Your task to perform on an android device: turn on javascript in the chrome app Image 0: 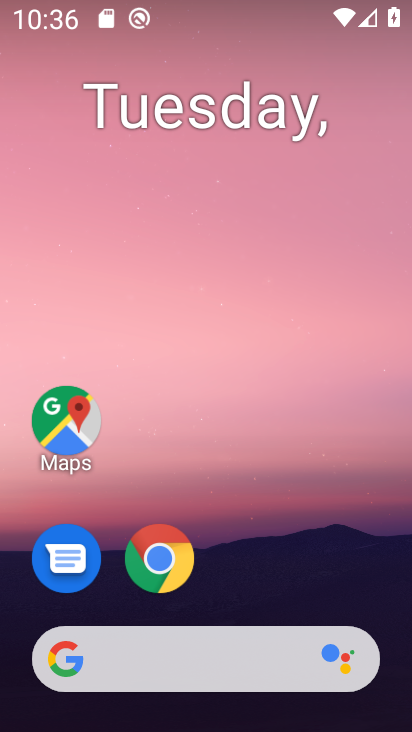
Step 0: drag from (287, 566) to (333, 109)
Your task to perform on an android device: turn on javascript in the chrome app Image 1: 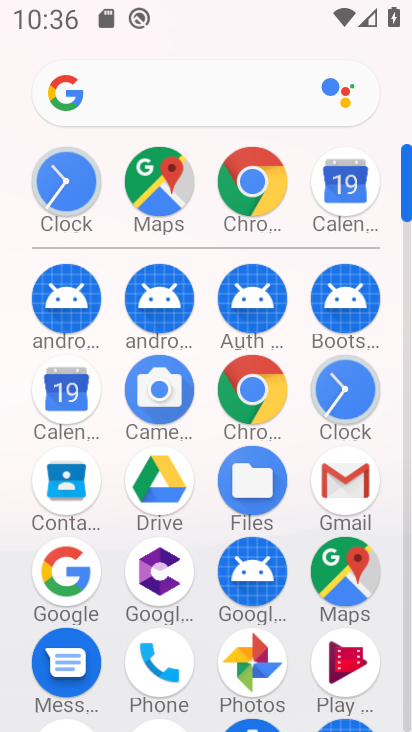
Step 1: click (263, 381)
Your task to perform on an android device: turn on javascript in the chrome app Image 2: 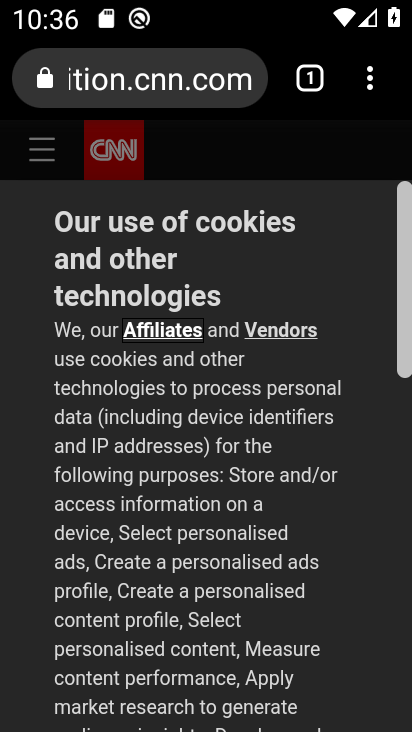
Step 2: click (369, 89)
Your task to perform on an android device: turn on javascript in the chrome app Image 3: 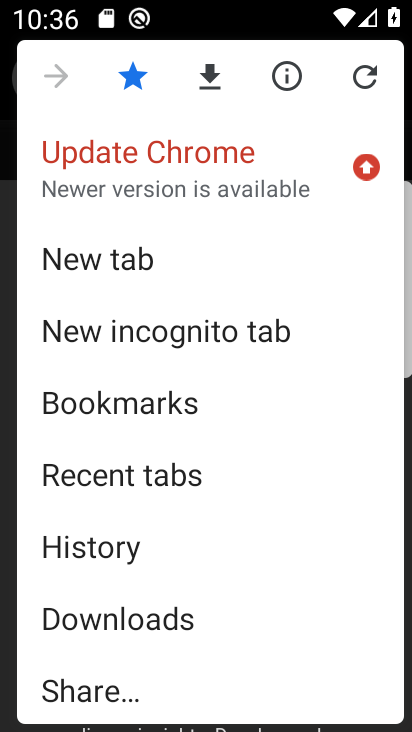
Step 3: drag from (285, 495) to (338, 241)
Your task to perform on an android device: turn on javascript in the chrome app Image 4: 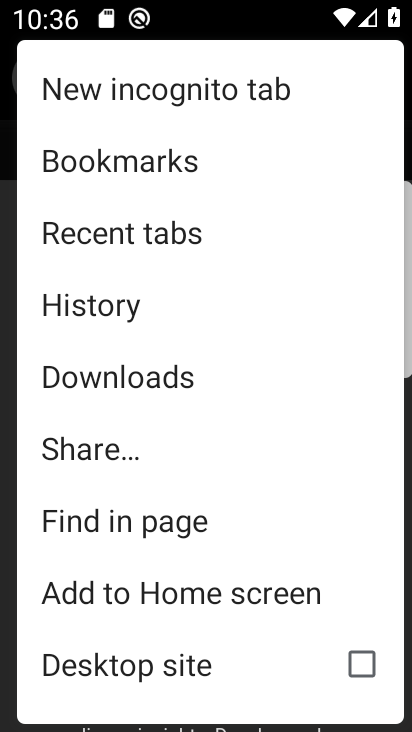
Step 4: drag from (313, 451) to (333, 244)
Your task to perform on an android device: turn on javascript in the chrome app Image 5: 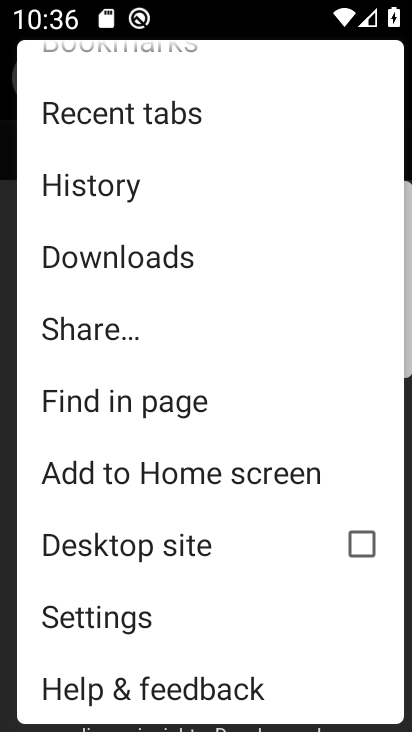
Step 5: drag from (319, 373) to (319, 229)
Your task to perform on an android device: turn on javascript in the chrome app Image 6: 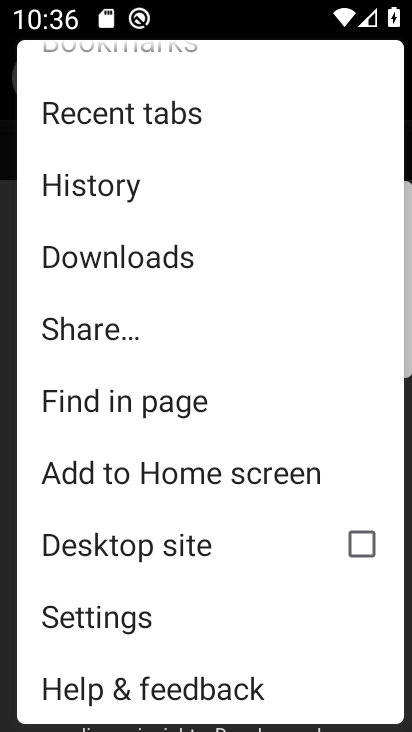
Step 6: click (193, 609)
Your task to perform on an android device: turn on javascript in the chrome app Image 7: 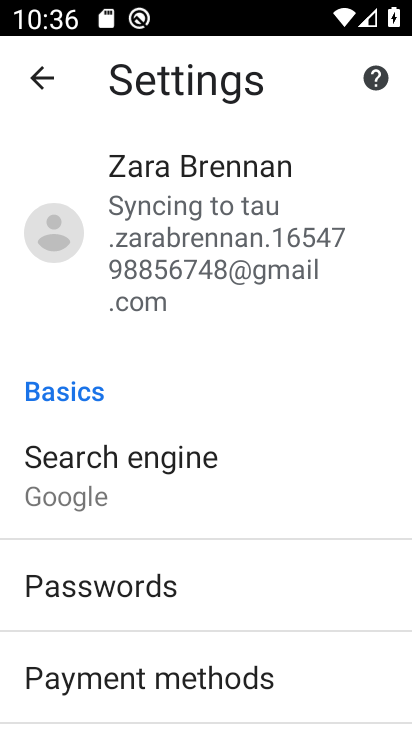
Step 7: drag from (292, 568) to (324, 319)
Your task to perform on an android device: turn on javascript in the chrome app Image 8: 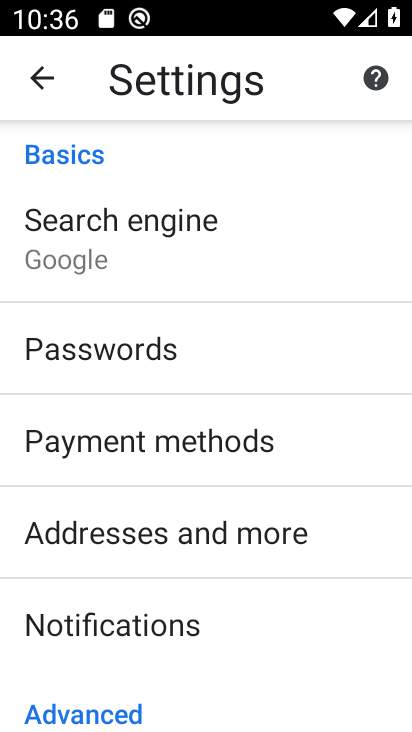
Step 8: drag from (339, 529) to (340, 271)
Your task to perform on an android device: turn on javascript in the chrome app Image 9: 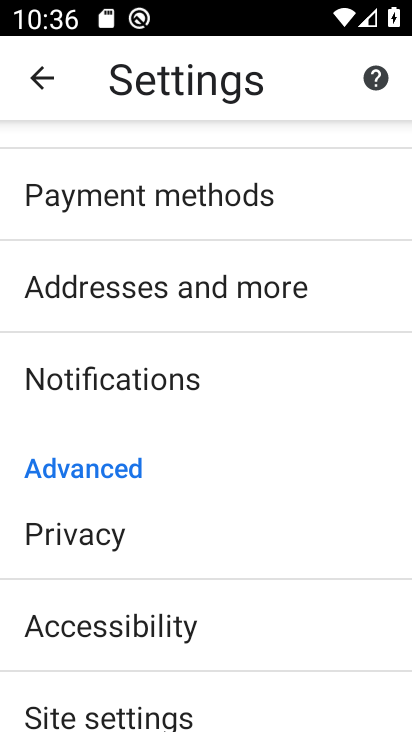
Step 9: drag from (325, 454) to (339, 268)
Your task to perform on an android device: turn on javascript in the chrome app Image 10: 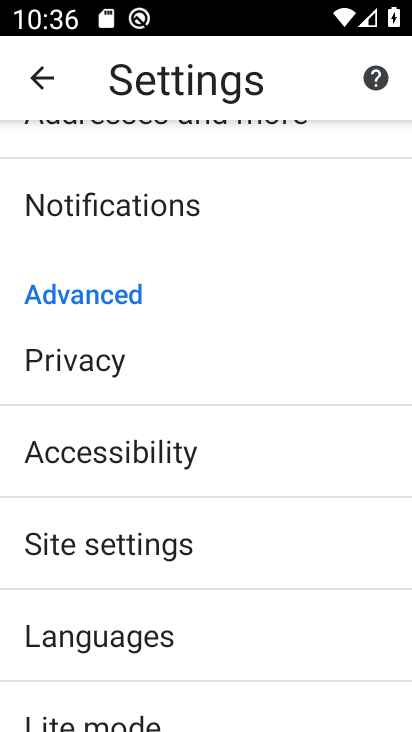
Step 10: drag from (324, 411) to (340, 260)
Your task to perform on an android device: turn on javascript in the chrome app Image 11: 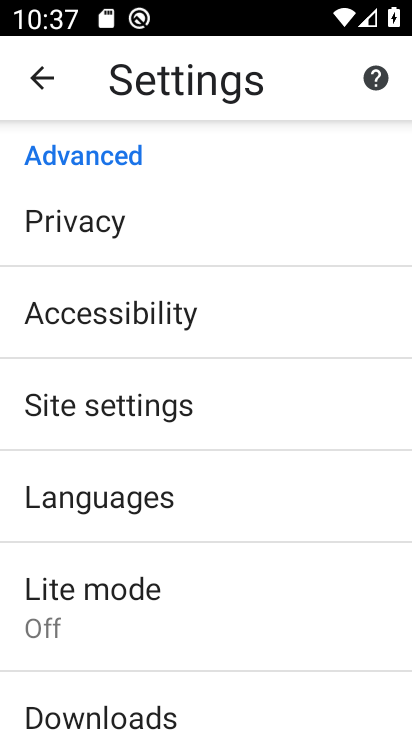
Step 11: drag from (308, 421) to (332, 222)
Your task to perform on an android device: turn on javascript in the chrome app Image 12: 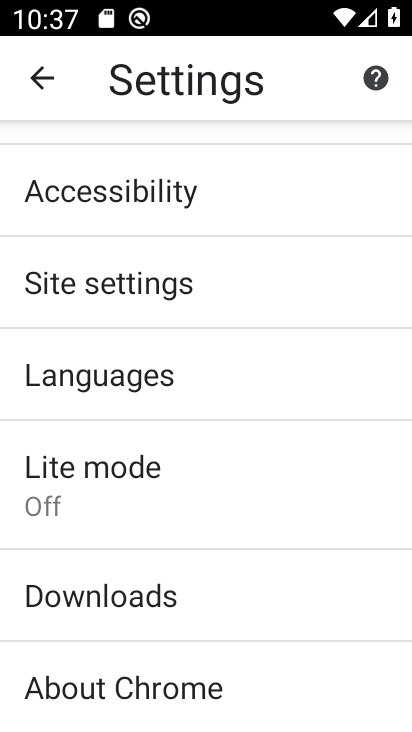
Step 12: drag from (313, 476) to (321, 279)
Your task to perform on an android device: turn on javascript in the chrome app Image 13: 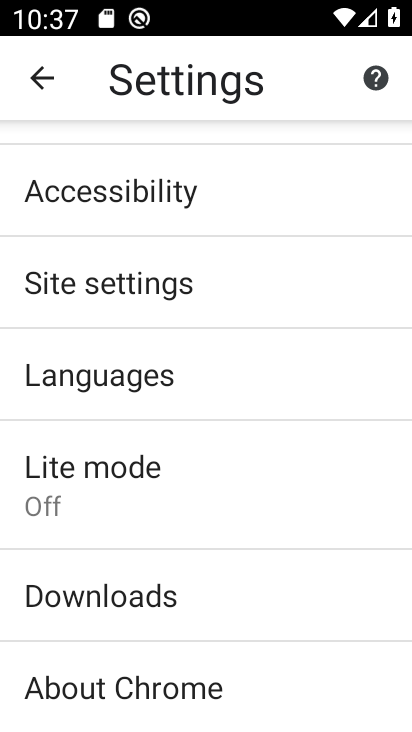
Step 13: drag from (303, 369) to (309, 468)
Your task to perform on an android device: turn on javascript in the chrome app Image 14: 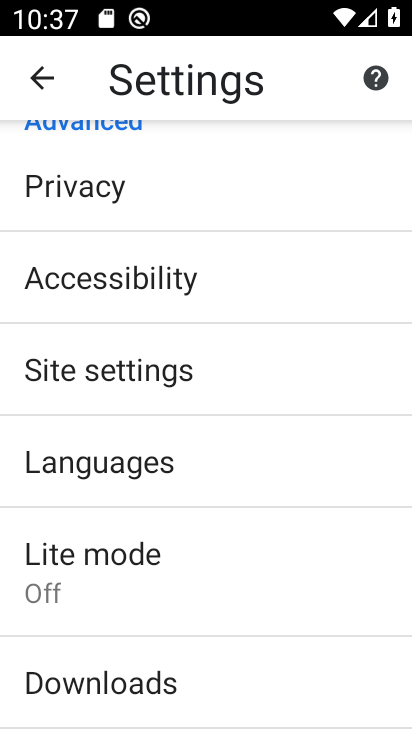
Step 14: drag from (312, 576) to (309, 362)
Your task to perform on an android device: turn on javascript in the chrome app Image 15: 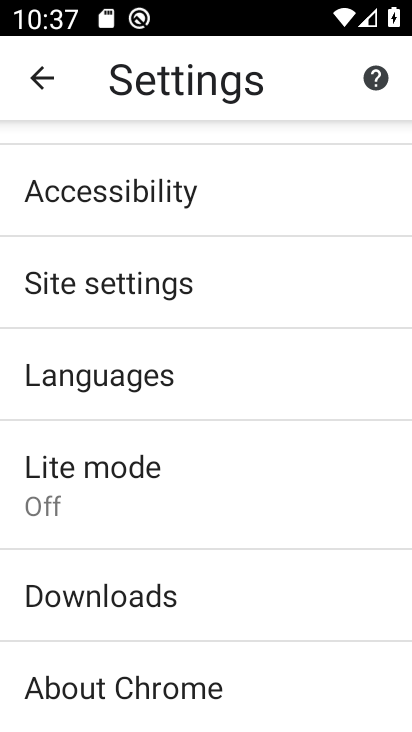
Step 15: click (249, 292)
Your task to perform on an android device: turn on javascript in the chrome app Image 16: 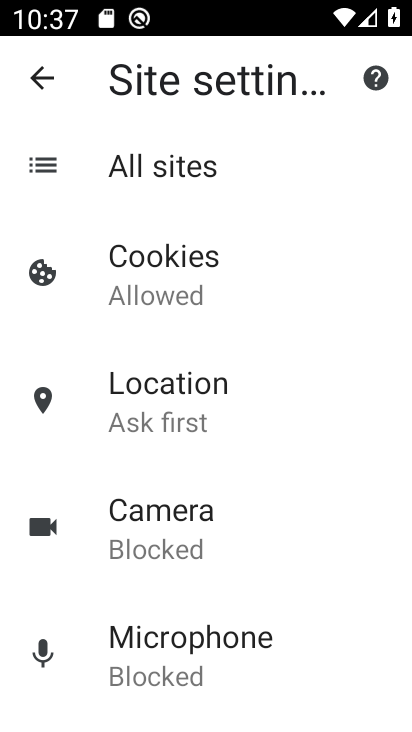
Step 16: drag from (301, 490) to (318, 293)
Your task to perform on an android device: turn on javascript in the chrome app Image 17: 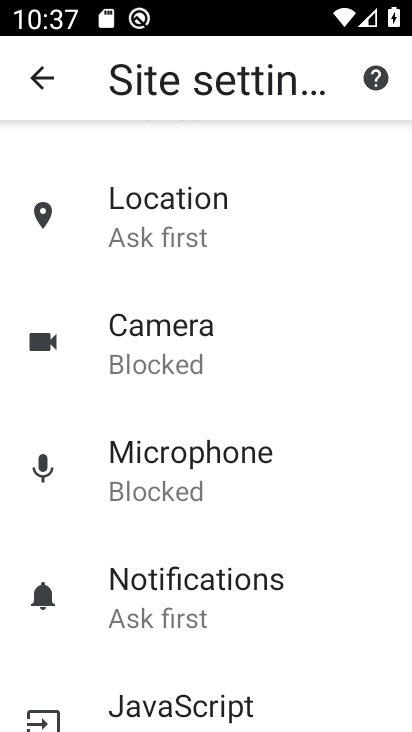
Step 17: drag from (353, 509) to (362, 332)
Your task to perform on an android device: turn on javascript in the chrome app Image 18: 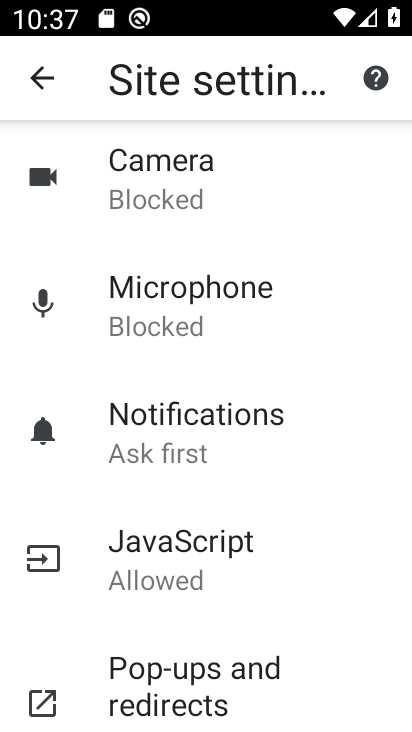
Step 18: drag from (325, 532) to (320, 355)
Your task to perform on an android device: turn on javascript in the chrome app Image 19: 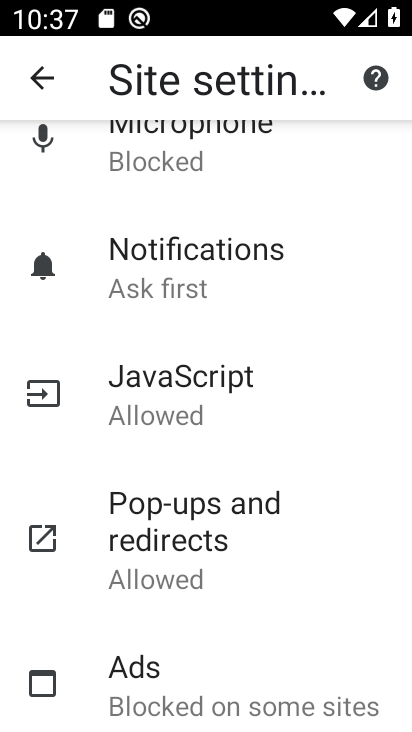
Step 19: click (206, 397)
Your task to perform on an android device: turn on javascript in the chrome app Image 20: 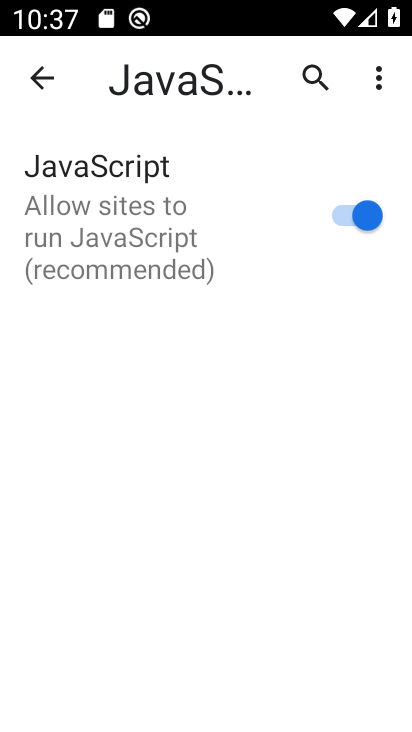
Step 20: task complete